Your task to perform on an android device: turn off priority inbox in the gmail app Image 0: 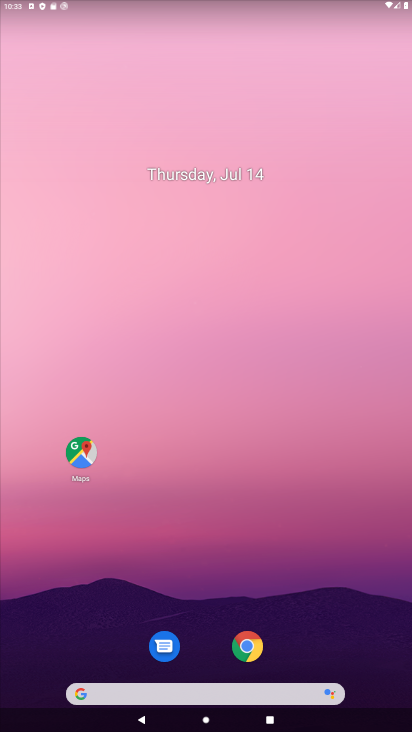
Step 0: drag from (209, 654) to (272, 118)
Your task to perform on an android device: turn off priority inbox in the gmail app Image 1: 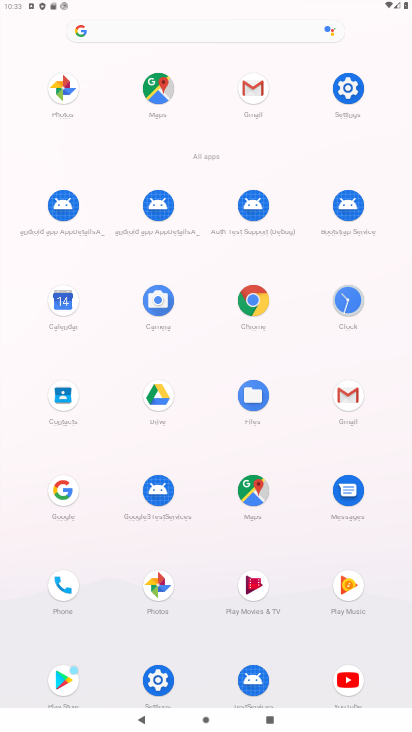
Step 1: click (229, 90)
Your task to perform on an android device: turn off priority inbox in the gmail app Image 2: 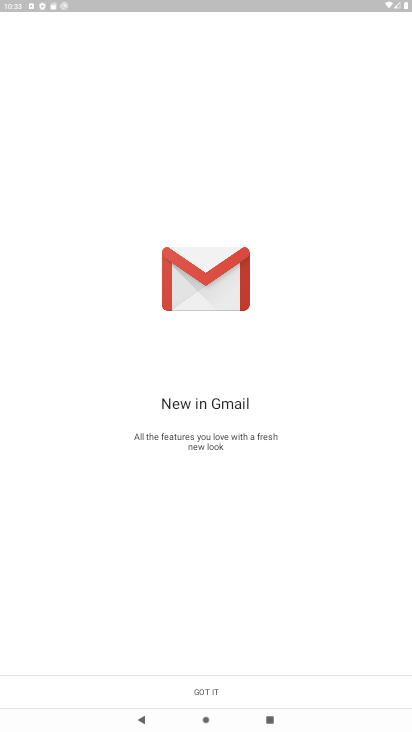
Step 2: click (211, 696)
Your task to perform on an android device: turn off priority inbox in the gmail app Image 3: 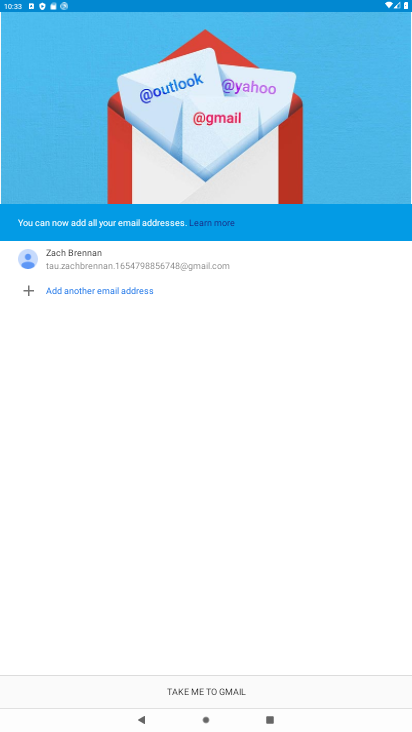
Step 3: click (218, 679)
Your task to perform on an android device: turn off priority inbox in the gmail app Image 4: 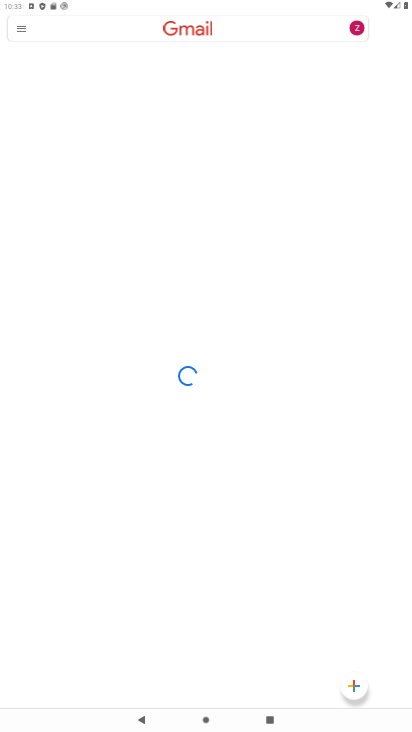
Step 4: click (52, 25)
Your task to perform on an android device: turn off priority inbox in the gmail app Image 5: 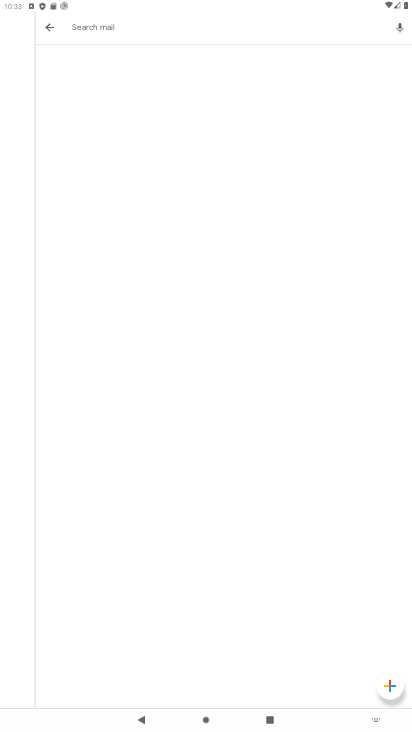
Step 5: click (51, 25)
Your task to perform on an android device: turn off priority inbox in the gmail app Image 6: 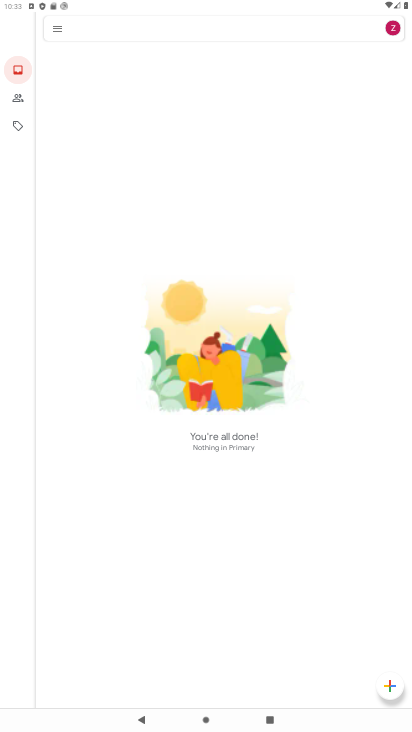
Step 6: click (58, 30)
Your task to perform on an android device: turn off priority inbox in the gmail app Image 7: 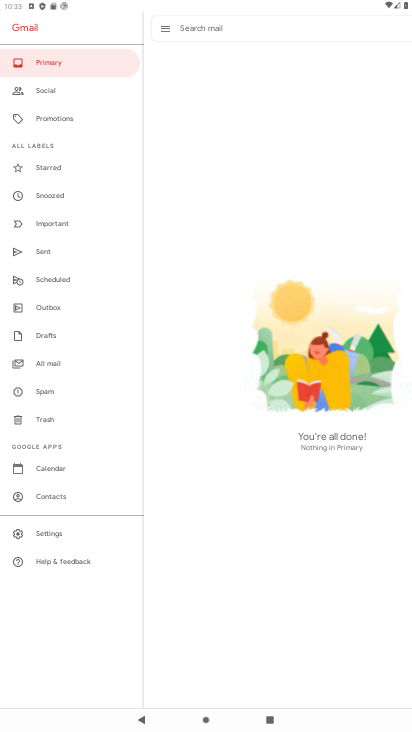
Step 7: click (37, 528)
Your task to perform on an android device: turn off priority inbox in the gmail app Image 8: 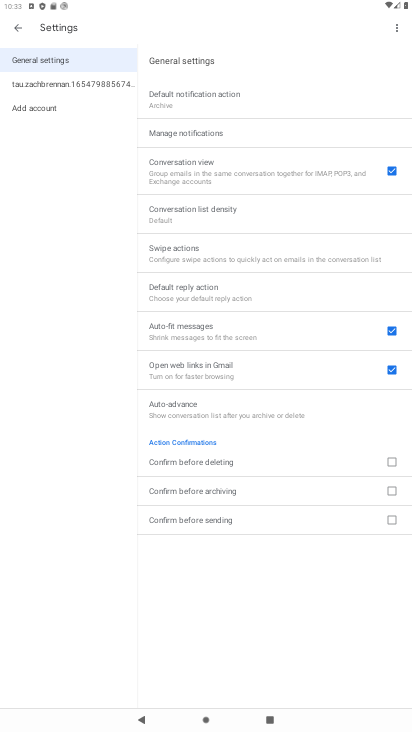
Step 8: drag from (201, 167) to (215, 391)
Your task to perform on an android device: turn off priority inbox in the gmail app Image 9: 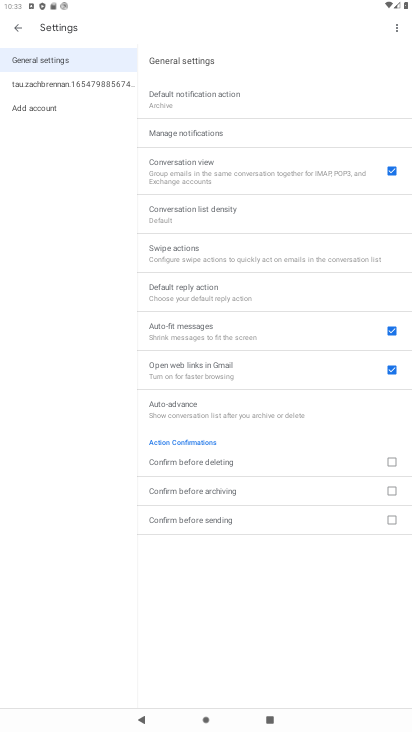
Step 9: drag from (202, 197) to (209, 371)
Your task to perform on an android device: turn off priority inbox in the gmail app Image 10: 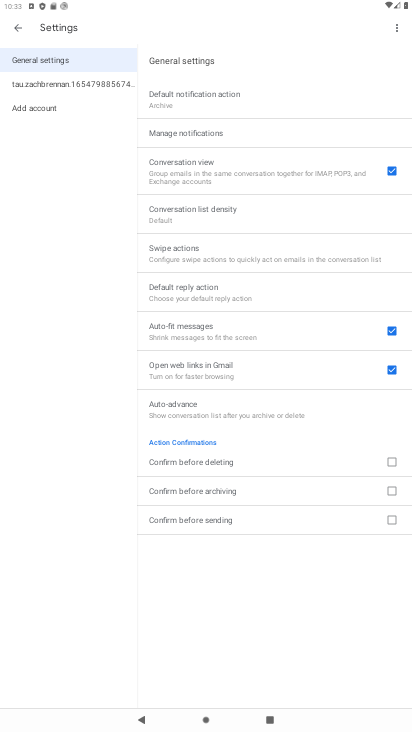
Step 10: drag from (242, 200) to (242, 274)
Your task to perform on an android device: turn off priority inbox in the gmail app Image 11: 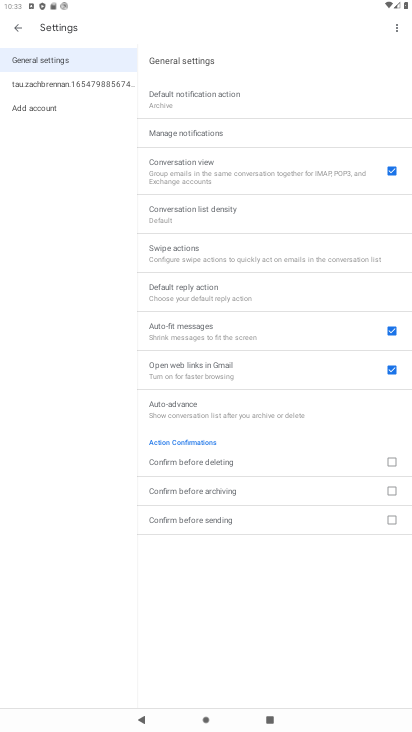
Step 11: click (74, 85)
Your task to perform on an android device: turn off priority inbox in the gmail app Image 12: 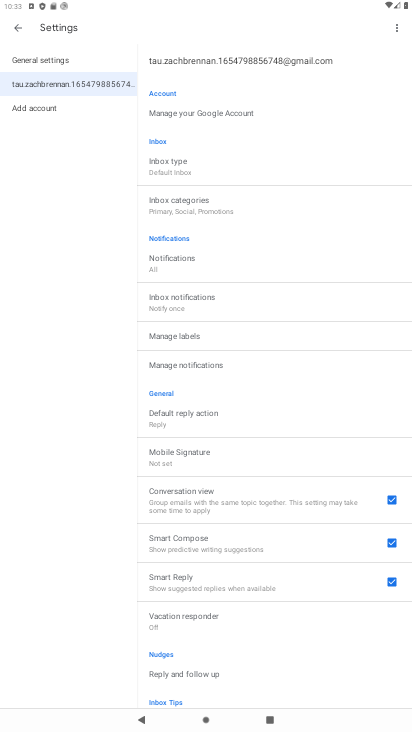
Step 12: click (179, 174)
Your task to perform on an android device: turn off priority inbox in the gmail app Image 13: 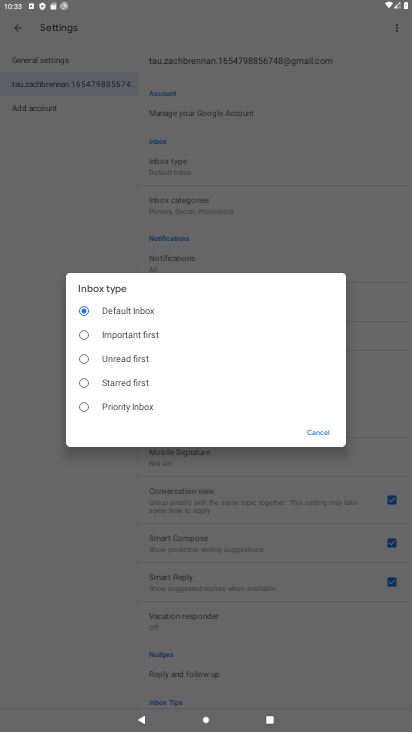
Step 13: task complete